Your task to perform on an android device: Clear the shopping cart on amazon. Image 0: 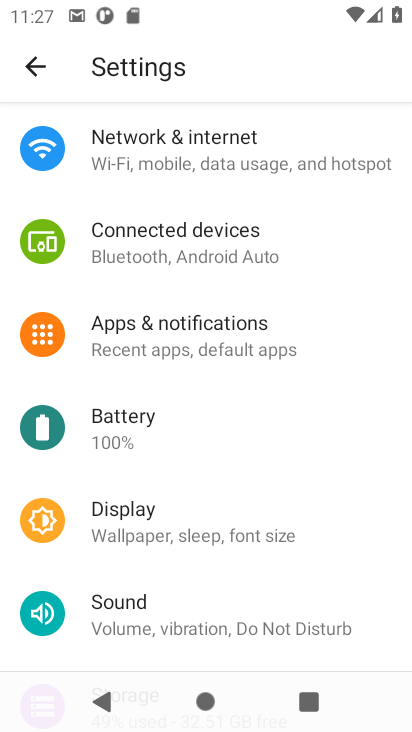
Step 0: press home button
Your task to perform on an android device: Clear the shopping cart on amazon. Image 1: 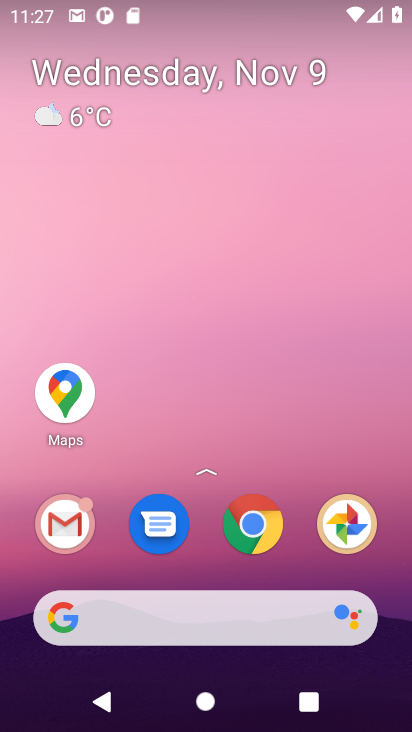
Step 1: click (252, 534)
Your task to perform on an android device: Clear the shopping cart on amazon. Image 2: 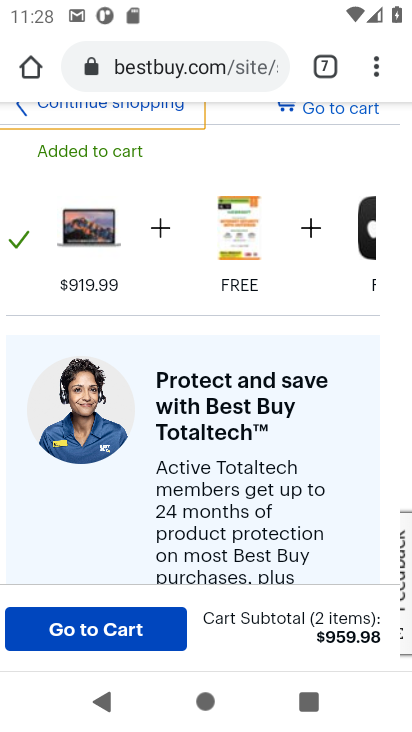
Step 2: click (323, 57)
Your task to perform on an android device: Clear the shopping cart on amazon. Image 3: 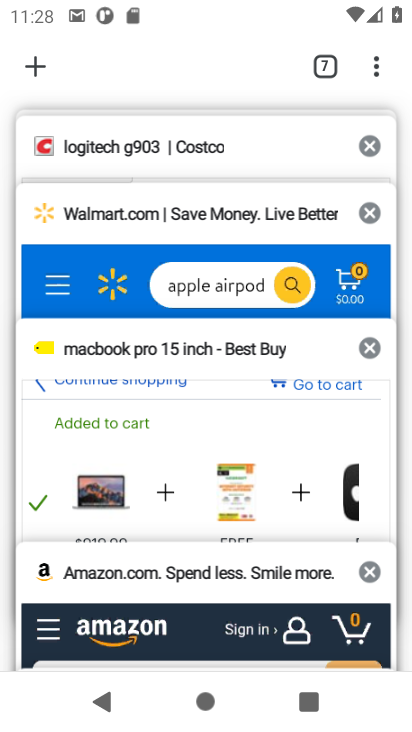
Step 3: drag from (271, 120) to (254, 193)
Your task to perform on an android device: Clear the shopping cart on amazon. Image 4: 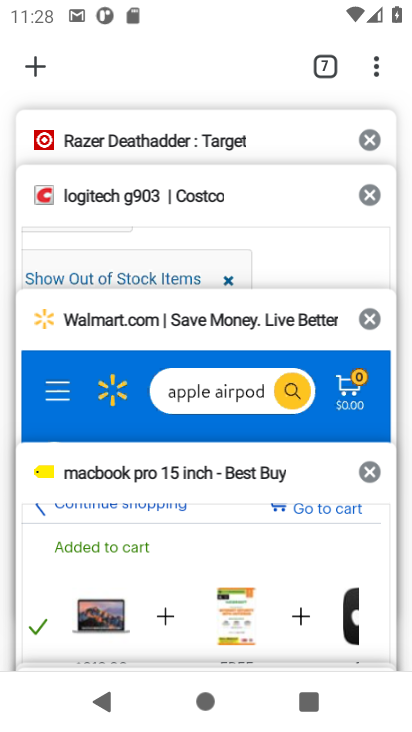
Step 4: drag from (160, 611) to (240, 323)
Your task to perform on an android device: Clear the shopping cart on amazon. Image 5: 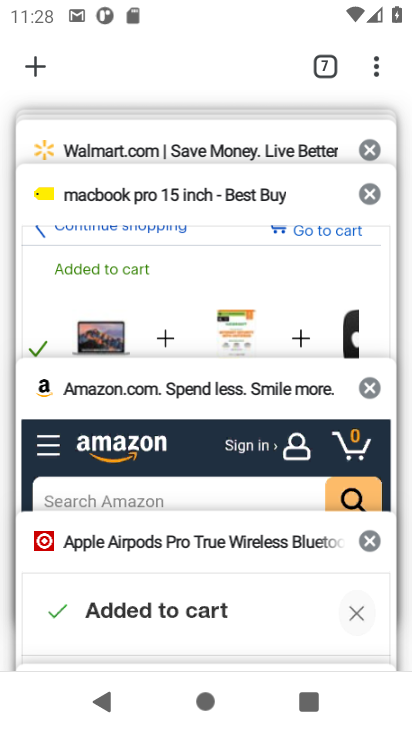
Step 5: click (200, 480)
Your task to perform on an android device: Clear the shopping cart on amazon. Image 6: 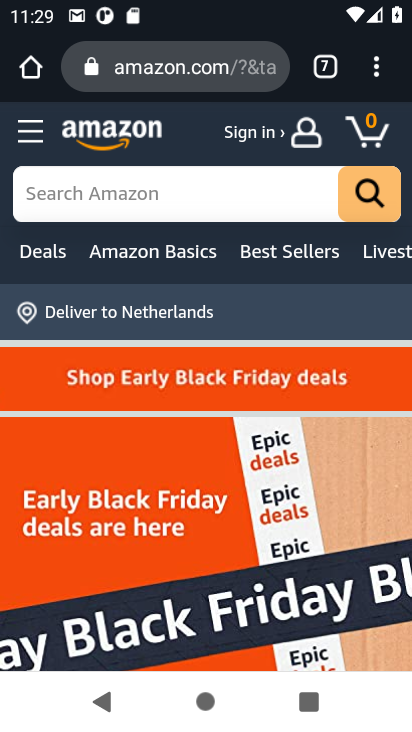
Step 6: task complete